Your task to perform on an android device: Show me popular games on the Play Store Image 0: 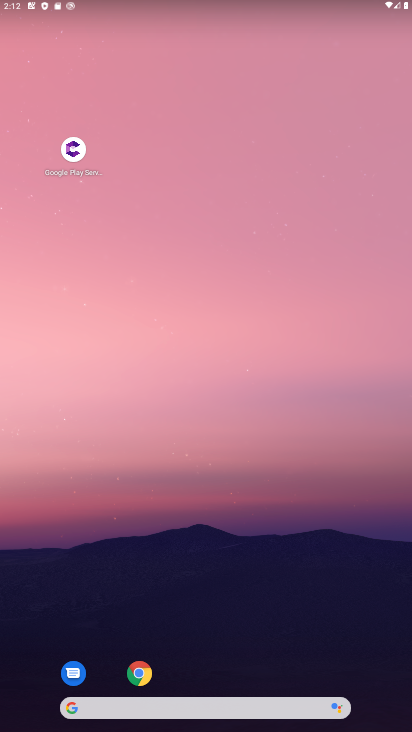
Step 0: drag from (203, 669) to (211, 272)
Your task to perform on an android device: Show me popular games on the Play Store Image 1: 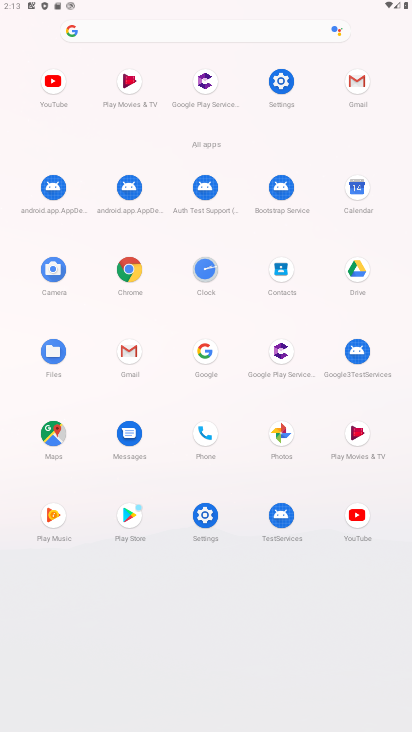
Step 1: click (122, 507)
Your task to perform on an android device: Show me popular games on the Play Store Image 2: 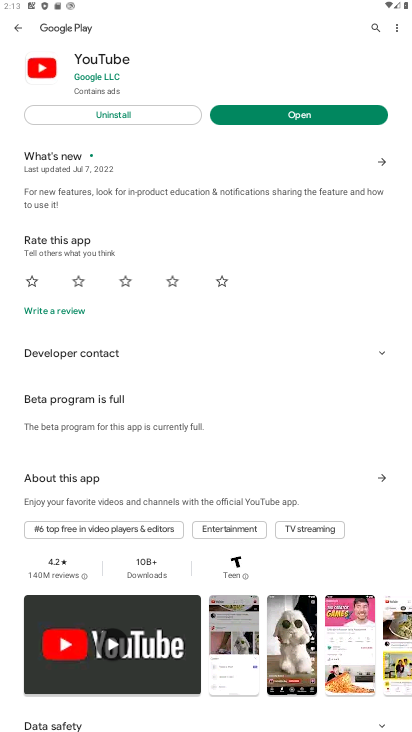
Step 2: click (16, 23)
Your task to perform on an android device: Show me popular games on the Play Store Image 3: 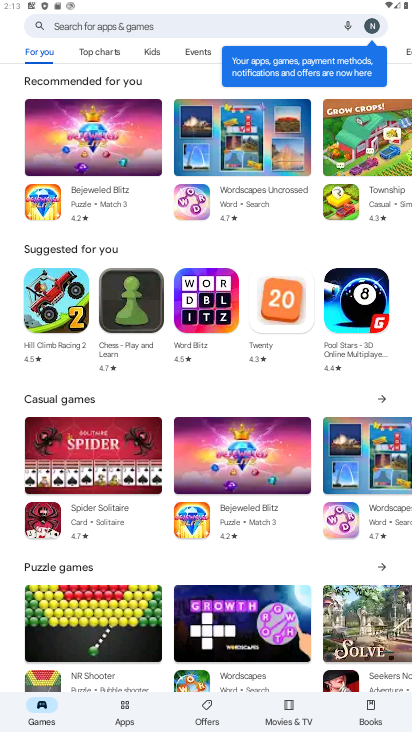
Step 3: click (87, 52)
Your task to perform on an android device: Show me popular games on the Play Store Image 4: 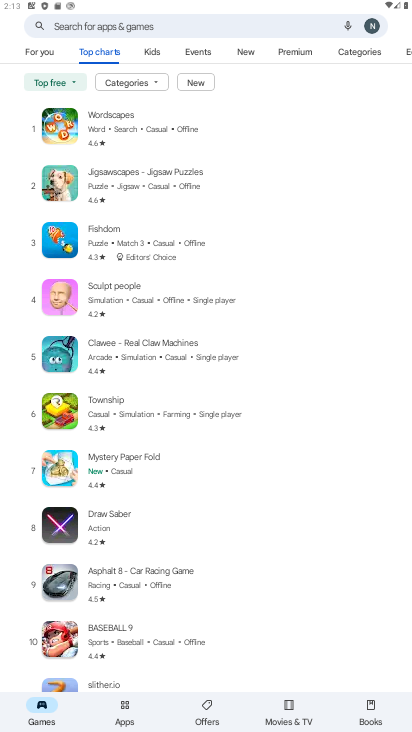
Step 4: task complete